Your task to perform on an android device: Go to eBay Image 0: 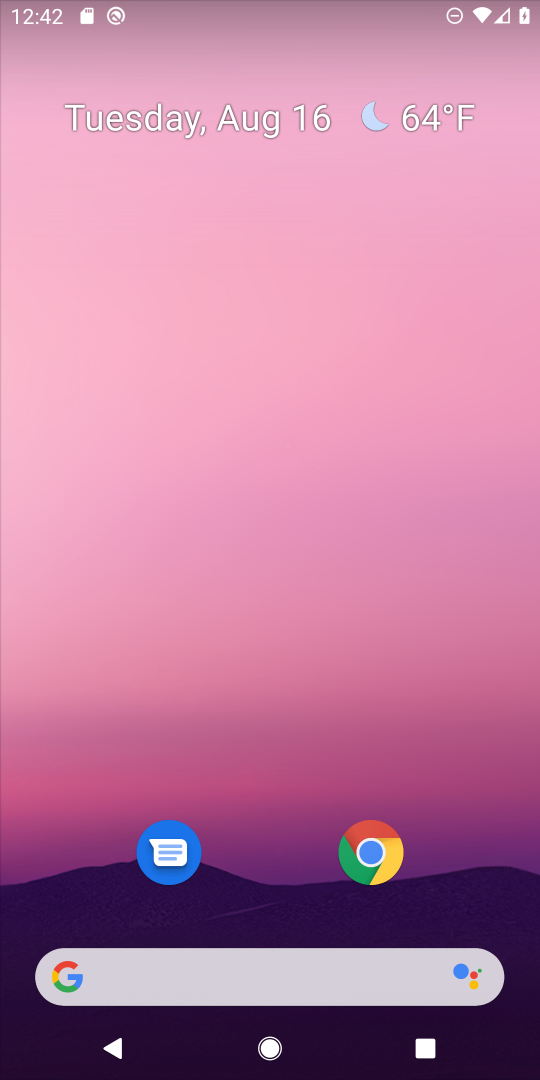
Step 0: click (373, 846)
Your task to perform on an android device: Go to eBay Image 1: 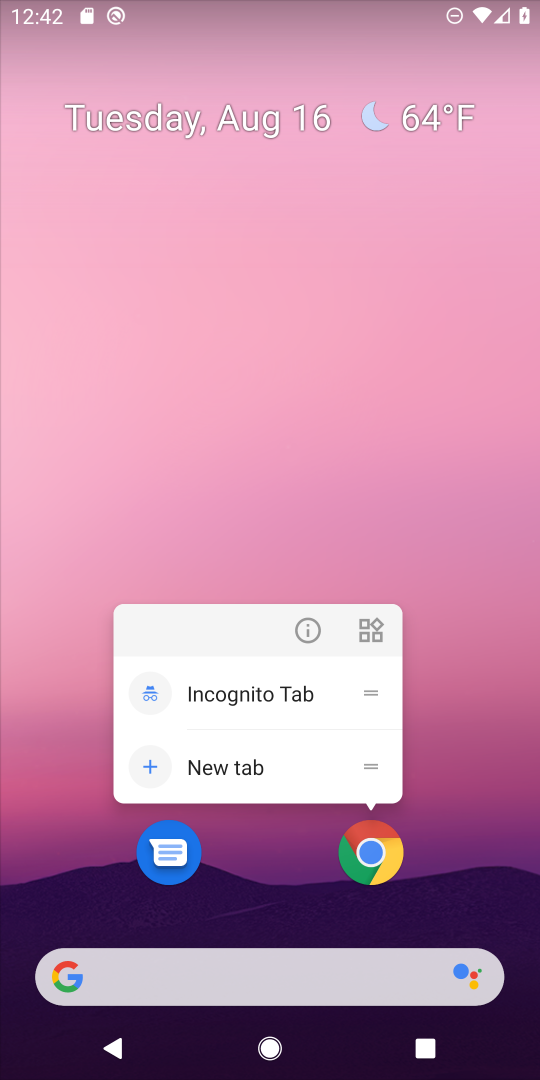
Step 1: click (375, 859)
Your task to perform on an android device: Go to eBay Image 2: 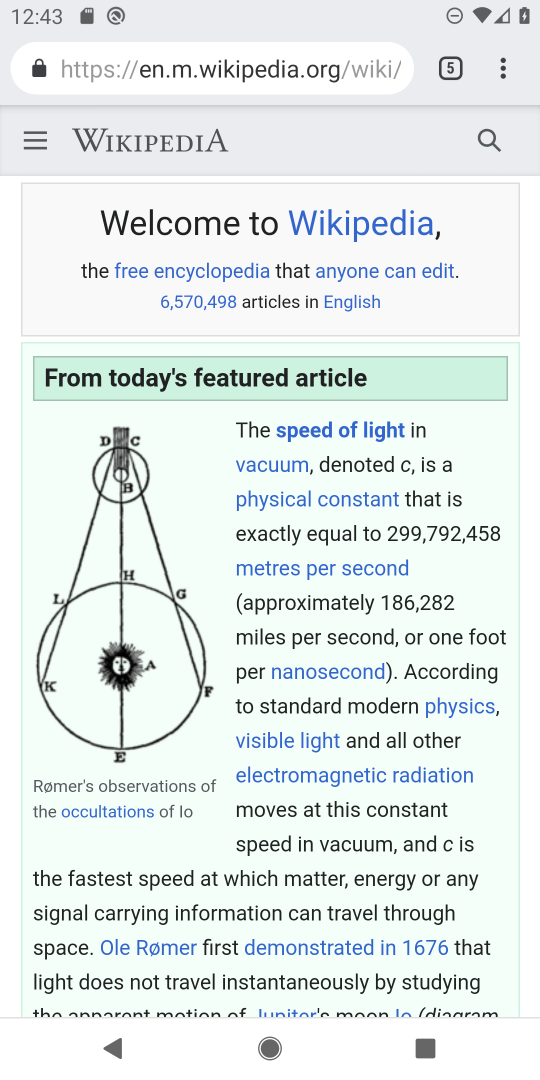
Step 2: press back button
Your task to perform on an android device: Go to eBay Image 3: 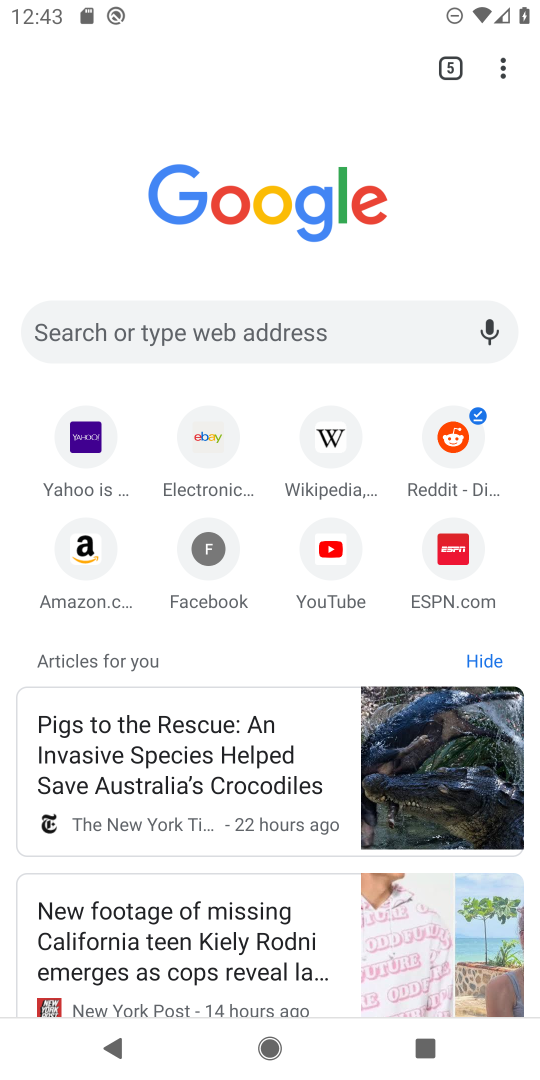
Step 3: click (226, 438)
Your task to perform on an android device: Go to eBay Image 4: 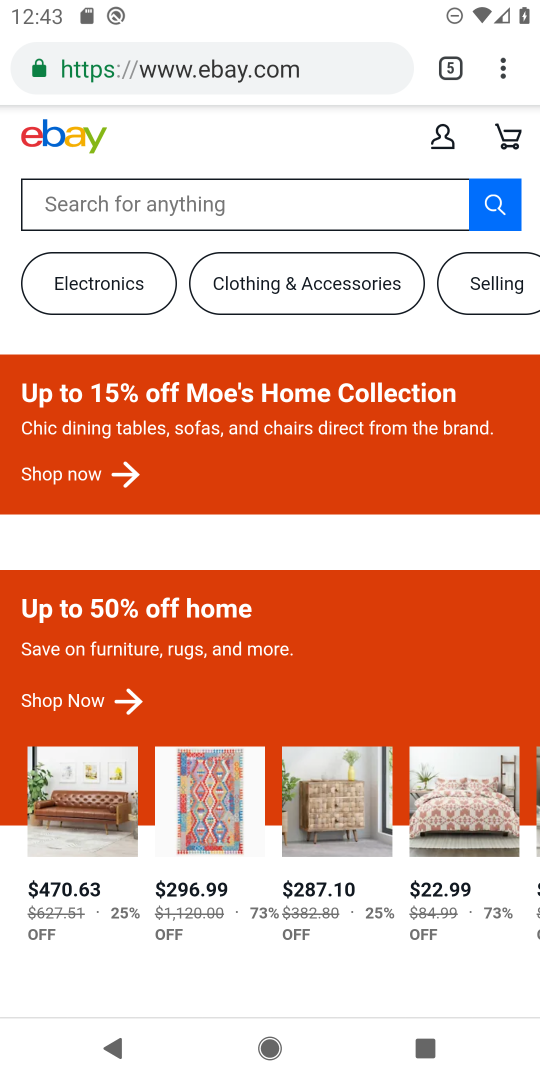
Step 4: task complete